Your task to perform on an android device: Go to privacy settings Image 0: 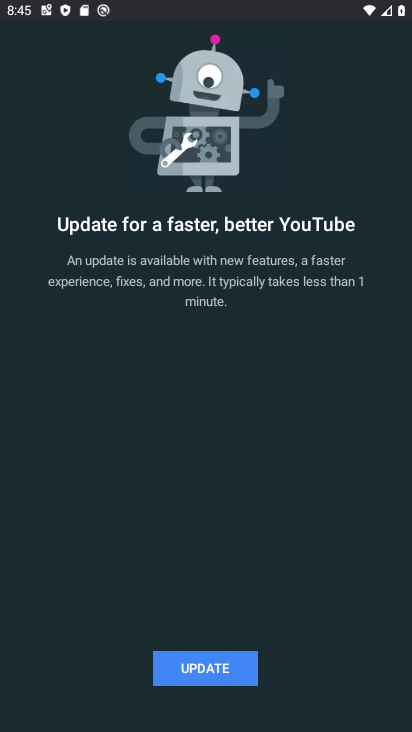
Step 0: press home button
Your task to perform on an android device: Go to privacy settings Image 1: 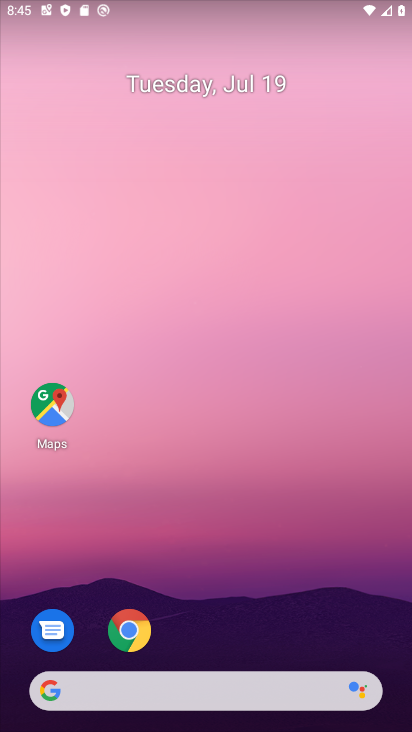
Step 1: drag from (178, 663) to (255, 73)
Your task to perform on an android device: Go to privacy settings Image 2: 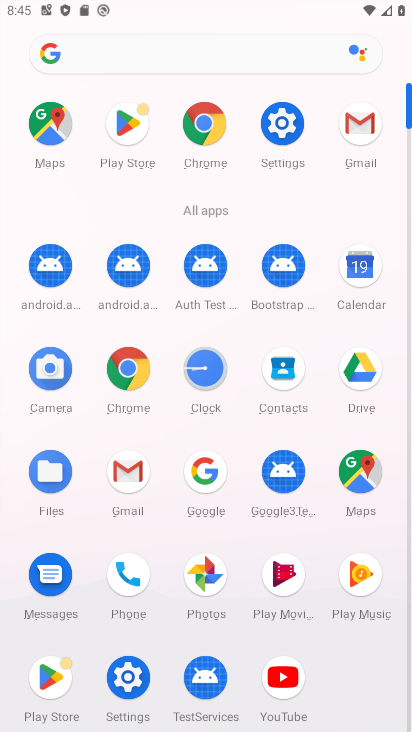
Step 2: click (280, 124)
Your task to perform on an android device: Go to privacy settings Image 3: 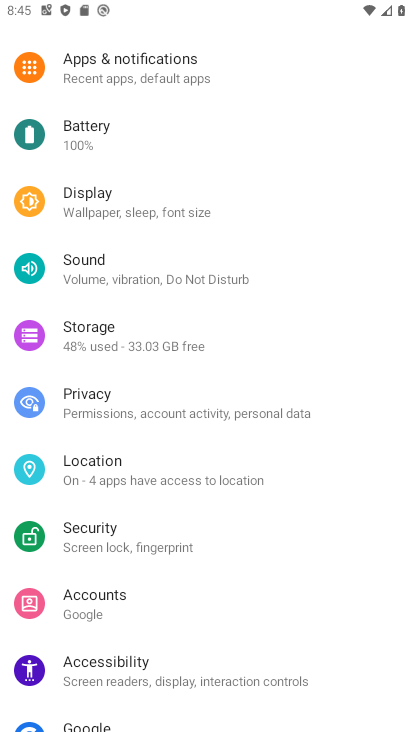
Step 3: click (90, 391)
Your task to perform on an android device: Go to privacy settings Image 4: 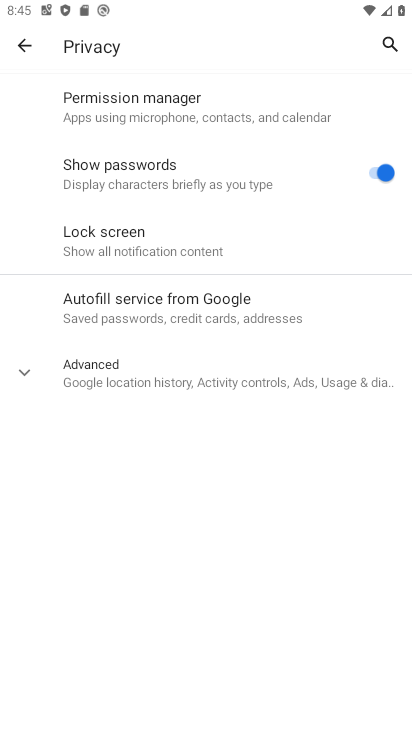
Step 4: task complete